Your task to perform on an android device: toggle wifi Image 0: 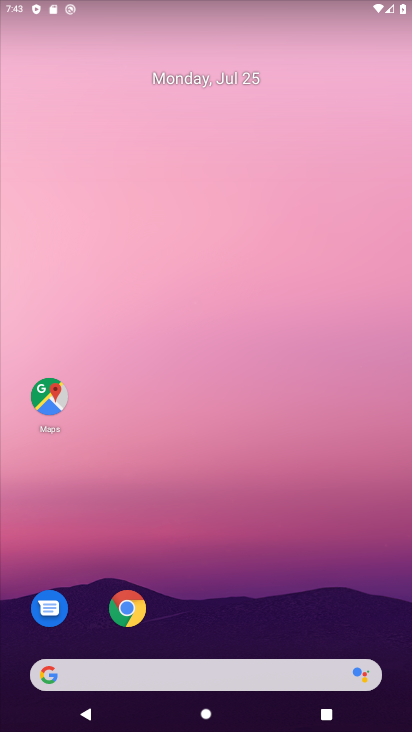
Step 0: drag from (184, 638) to (165, 0)
Your task to perform on an android device: toggle wifi Image 1: 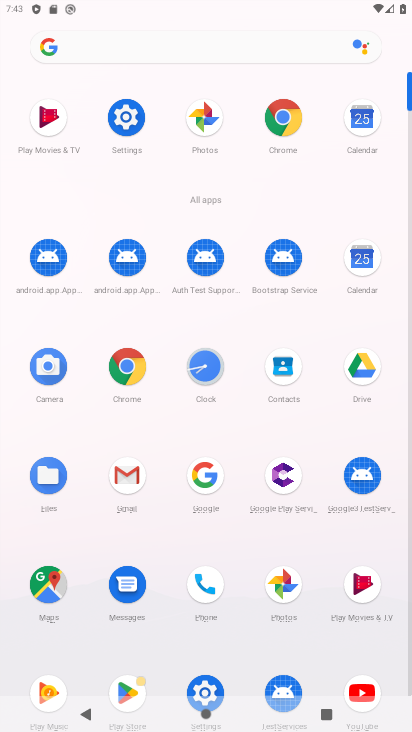
Step 1: click (123, 115)
Your task to perform on an android device: toggle wifi Image 2: 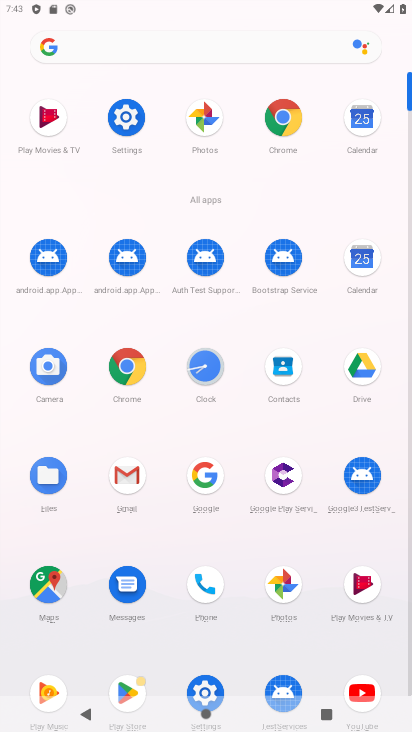
Step 2: click (123, 115)
Your task to perform on an android device: toggle wifi Image 3: 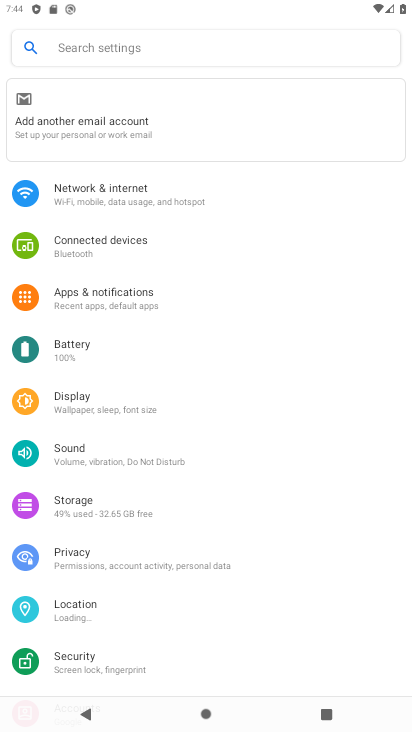
Step 3: click (134, 194)
Your task to perform on an android device: toggle wifi Image 4: 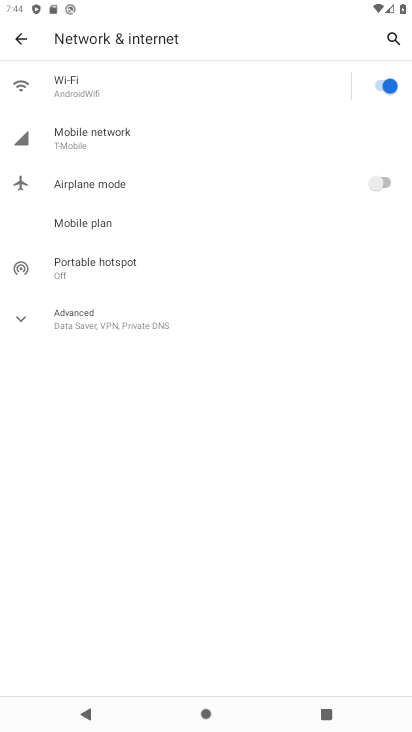
Step 4: click (106, 79)
Your task to perform on an android device: toggle wifi Image 5: 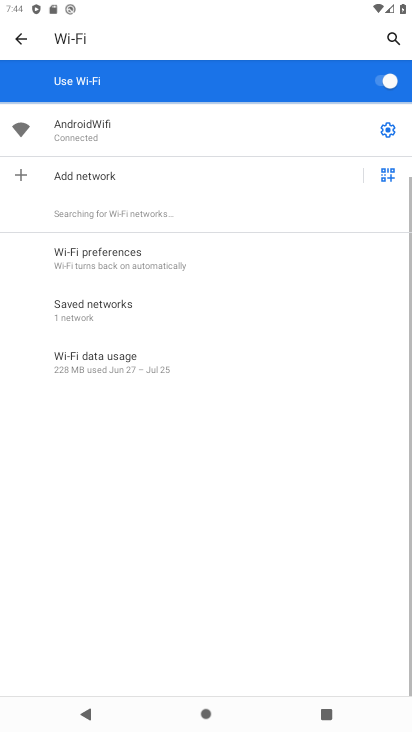
Step 5: click (368, 77)
Your task to perform on an android device: toggle wifi Image 6: 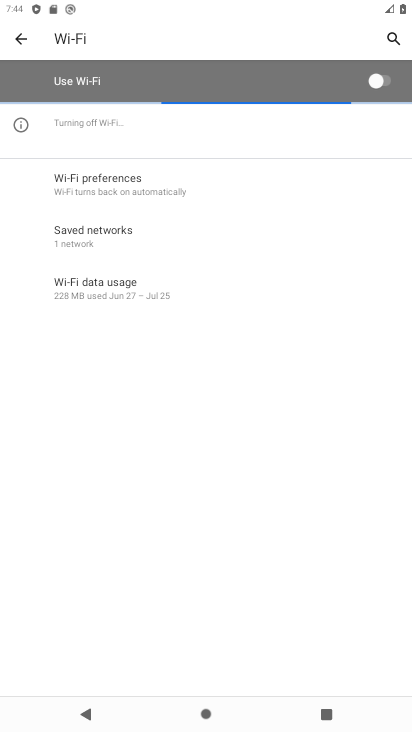
Step 6: task complete